Your task to perform on an android device: Go to Reddit.com Image 0: 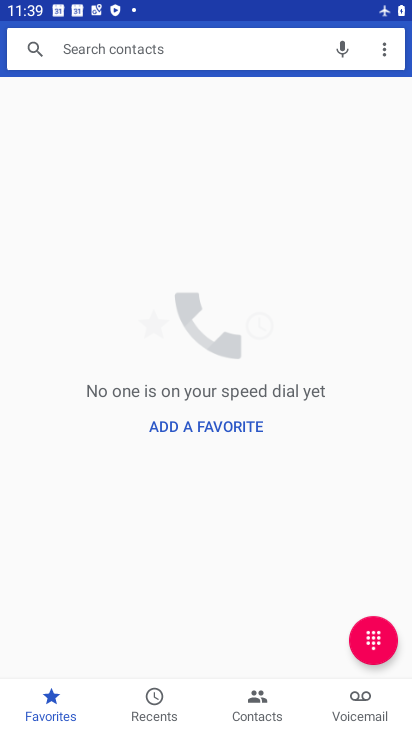
Step 0: press home button
Your task to perform on an android device: Go to Reddit.com Image 1: 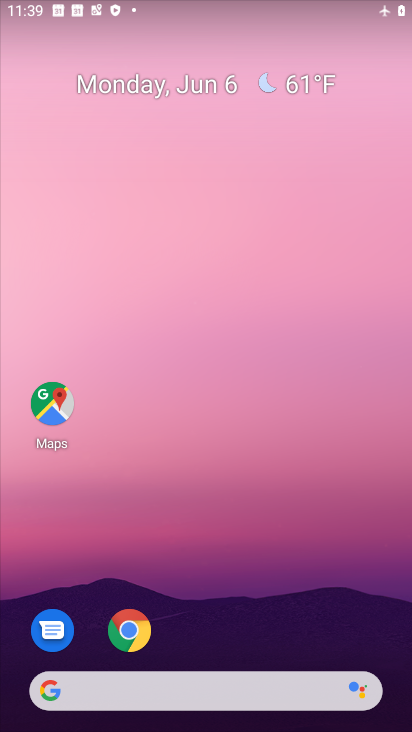
Step 1: drag from (339, 608) to (367, 100)
Your task to perform on an android device: Go to Reddit.com Image 2: 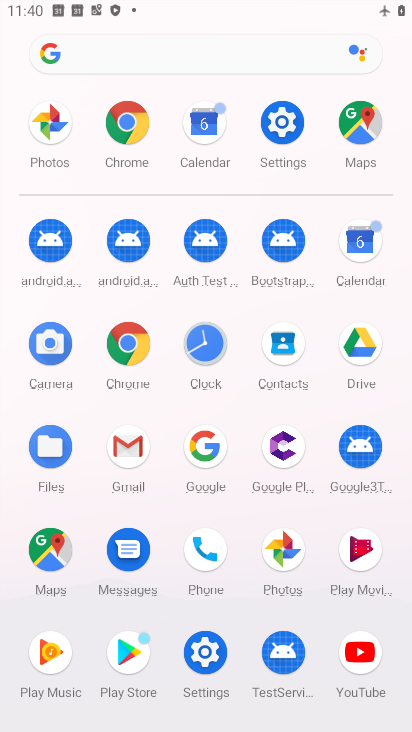
Step 2: click (143, 365)
Your task to perform on an android device: Go to Reddit.com Image 3: 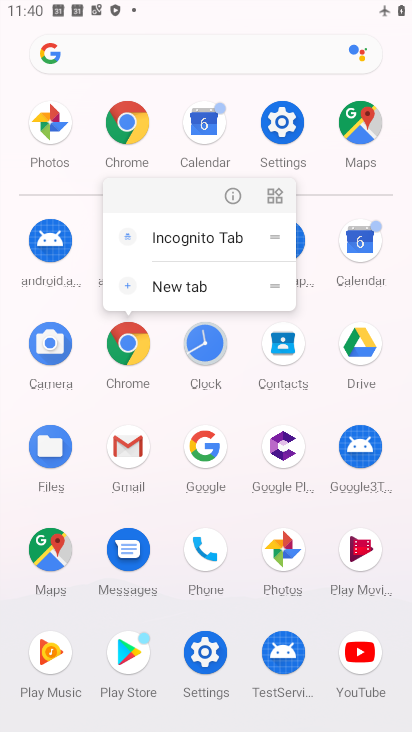
Step 3: click (131, 356)
Your task to perform on an android device: Go to Reddit.com Image 4: 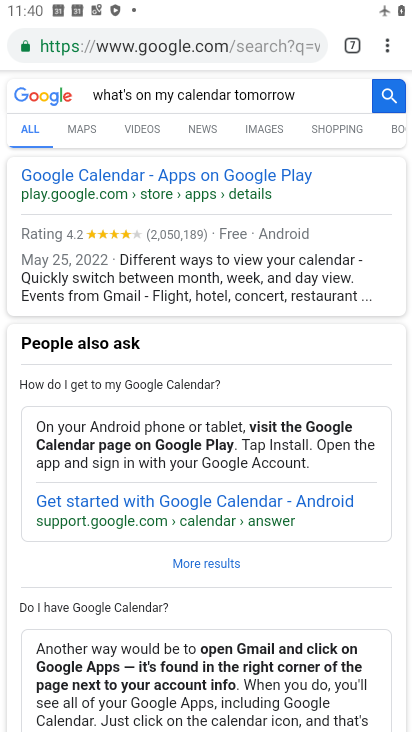
Step 4: click (293, 58)
Your task to perform on an android device: Go to Reddit.com Image 5: 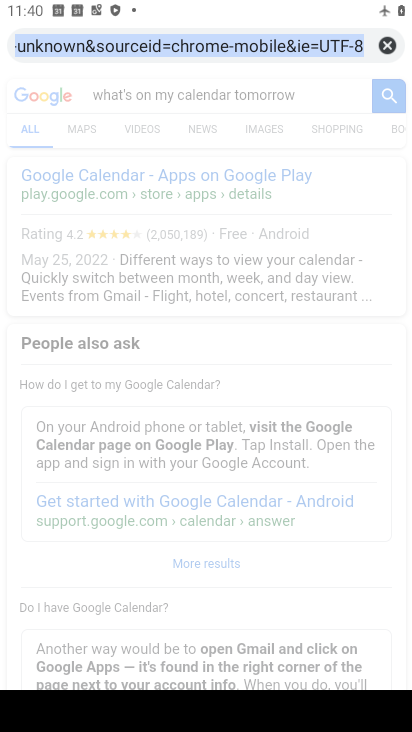
Step 5: click (382, 46)
Your task to perform on an android device: Go to Reddit.com Image 6: 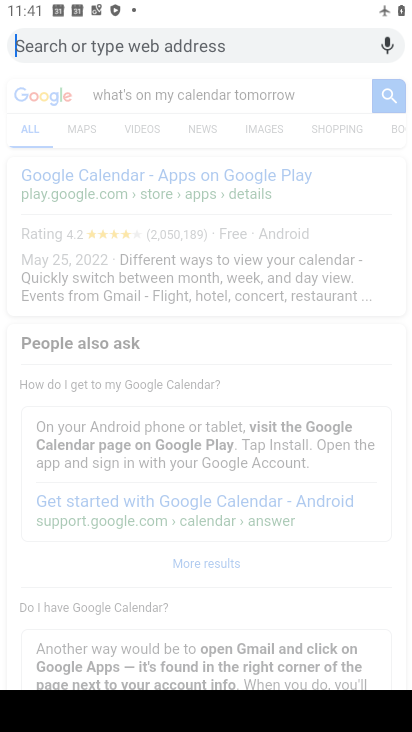
Step 6: type "reddit.com"
Your task to perform on an android device: Go to Reddit.com Image 7: 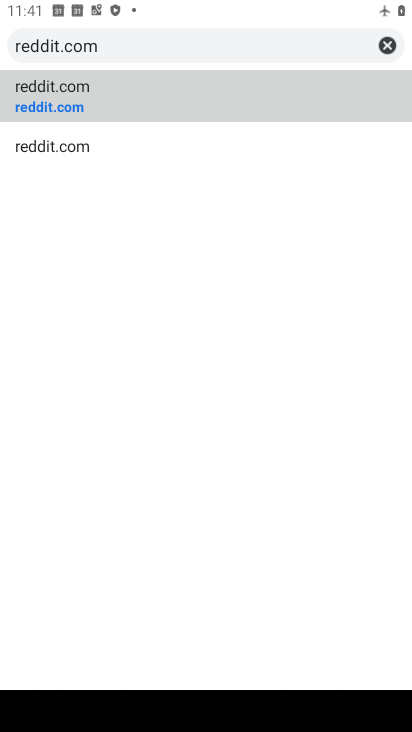
Step 7: click (138, 104)
Your task to perform on an android device: Go to Reddit.com Image 8: 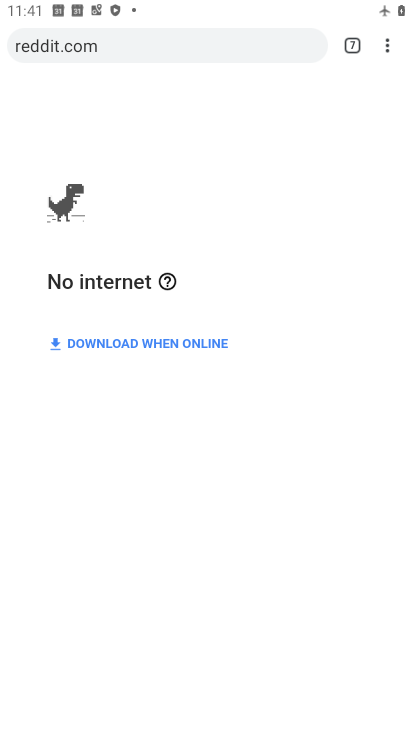
Step 8: task complete